Your task to perform on an android device: Open eBay Image 0: 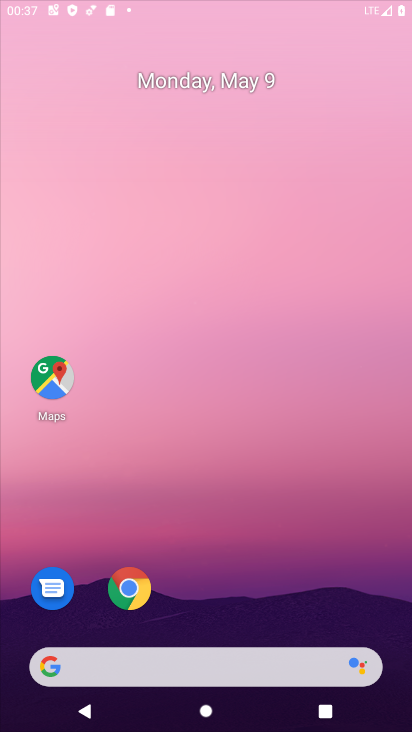
Step 0: drag from (270, 521) to (217, 89)
Your task to perform on an android device: Open eBay Image 1: 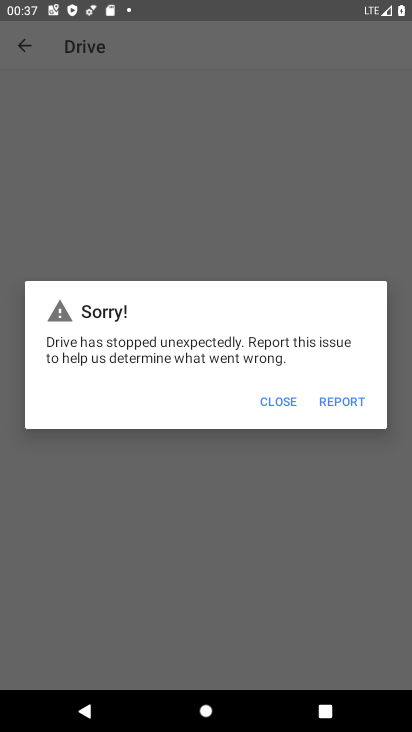
Step 1: press home button
Your task to perform on an android device: Open eBay Image 2: 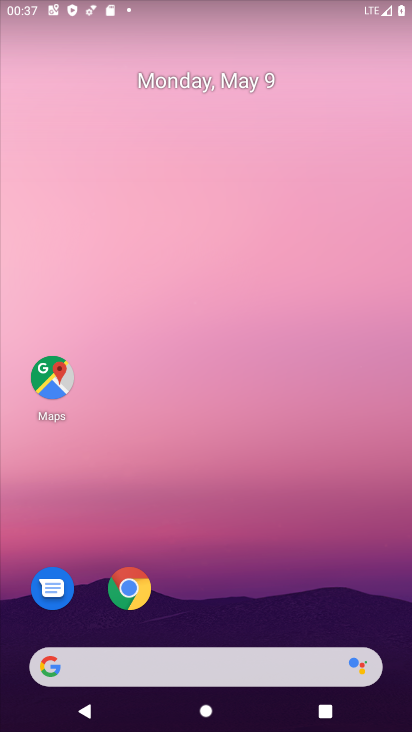
Step 2: click (119, 593)
Your task to perform on an android device: Open eBay Image 3: 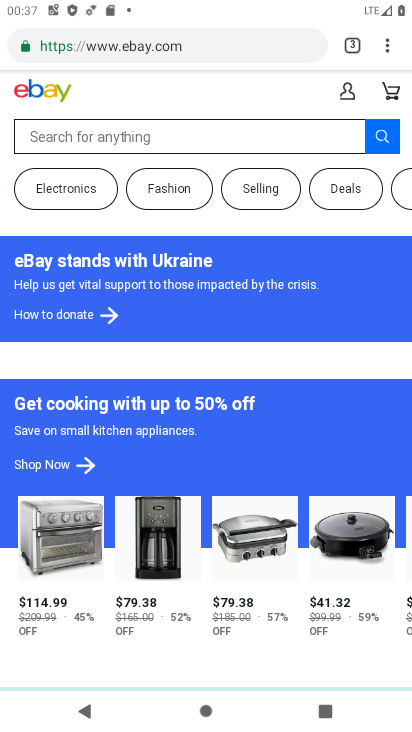
Step 3: task complete